Your task to perform on an android device: turn off picture-in-picture Image 0: 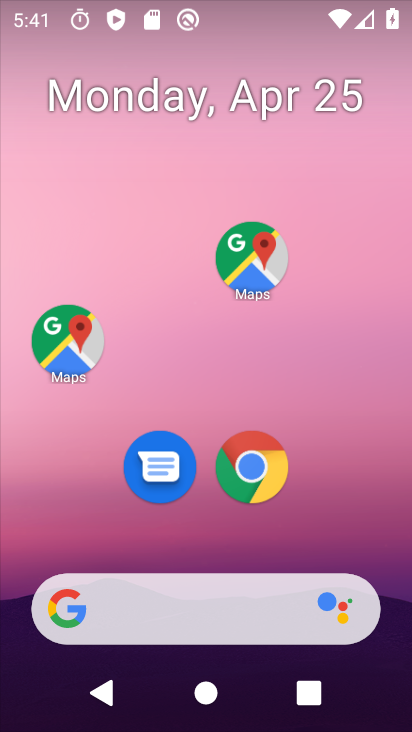
Step 0: drag from (271, 441) to (238, 37)
Your task to perform on an android device: turn off picture-in-picture Image 1: 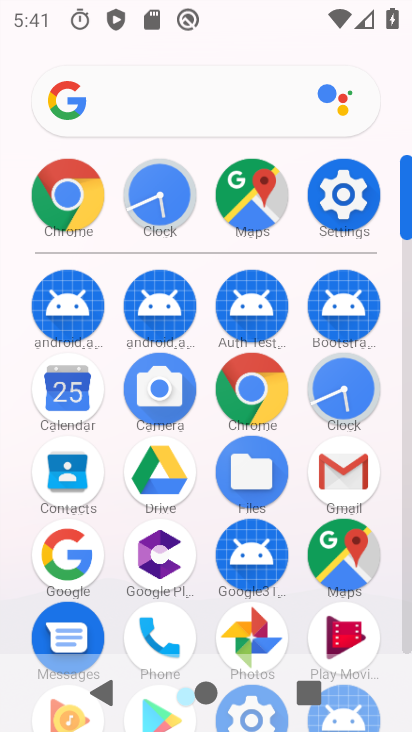
Step 1: drag from (294, 612) to (282, 232)
Your task to perform on an android device: turn off picture-in-picture Image 2: 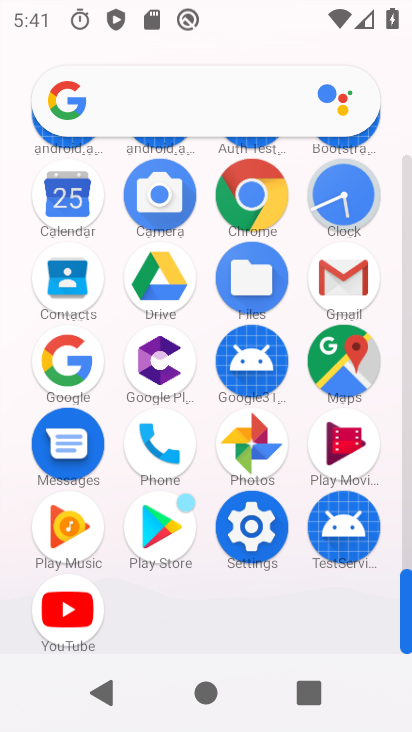
Step 2: click (259, 538)
Your task to perform on an android device: turn off picture-in-picture Image 3: 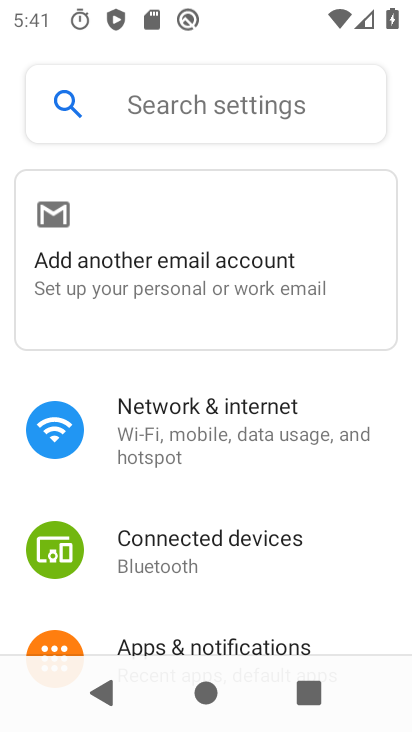
Step 3: drag from (331, 631) to (307, 74)
Your task to perform on an android device: turn off picture-in-picture Image 4: 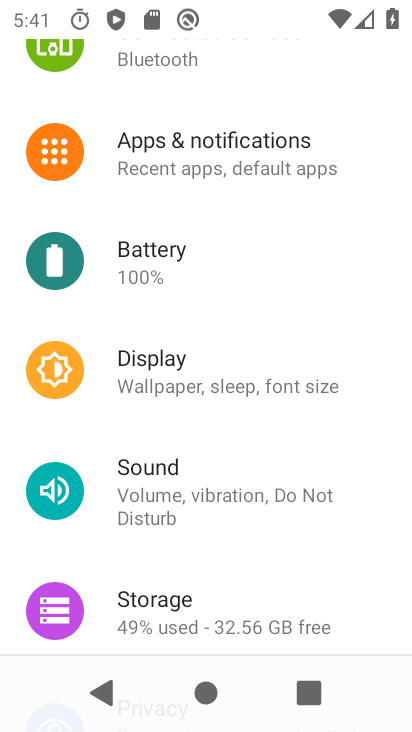
Step 4: drag from (279, 619) to (273, 724)
Your task to perform on an android device: turn off picture-in-picture Image 5: 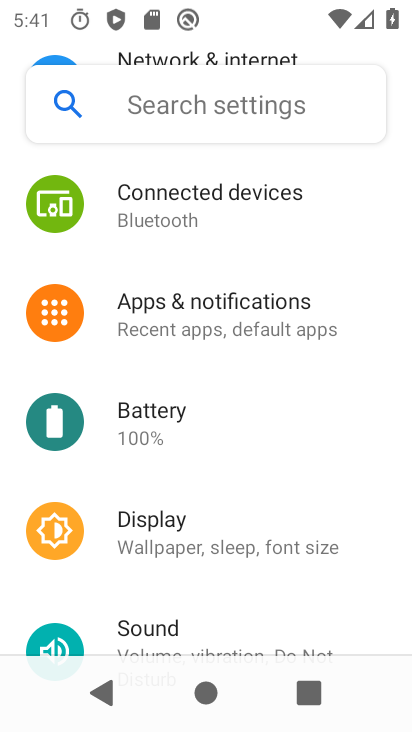
Step 5: click (232, 332)
Your task to perform on an android device: turn off picture-in-picture Image 6: 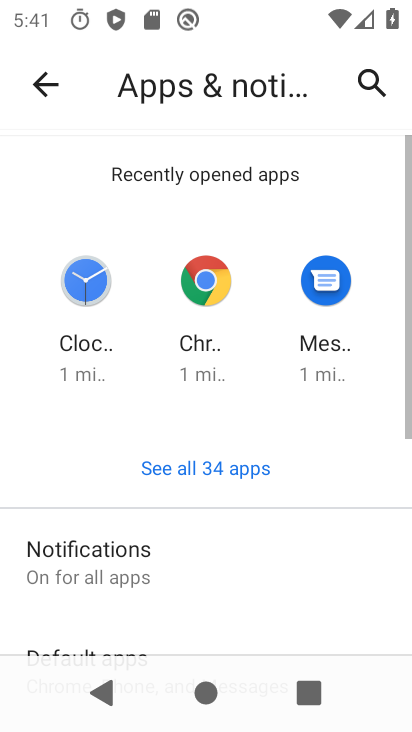
Step 6: drag from (292, 637) to (306, 13)
Your task to perform on an android device: turn off picture-in-picture Image 7: 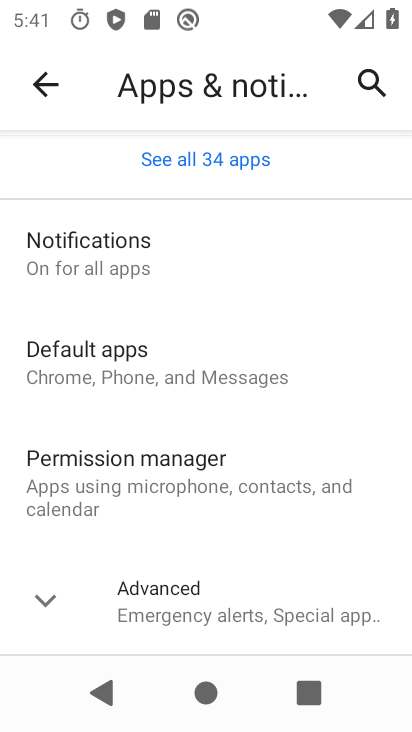
Step 7: click (275, 601)
Your task to perform on an android device: turn off picture-in-picture Image 8: 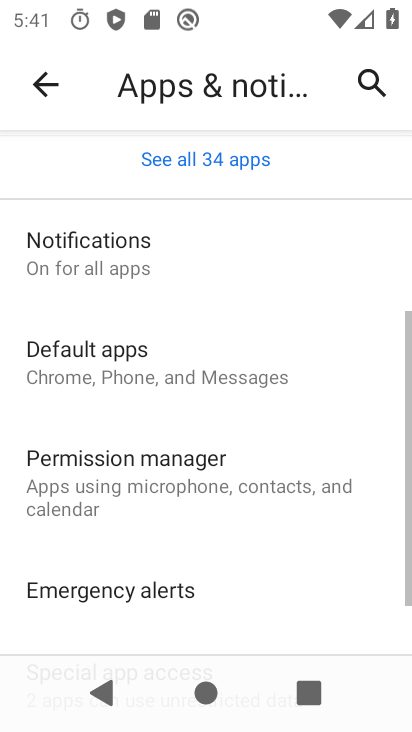
Step 8: drag from (289, 650) to (242, 121)
Your task to perform on an android device: turn off picture-in-picture Image 9: 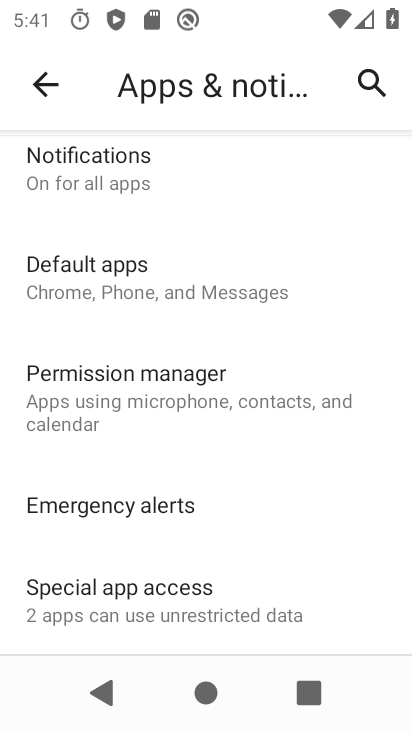
Step 9: click (176, 599)
Your task to perform on an android device: turn off picture-in-picture Image 10: 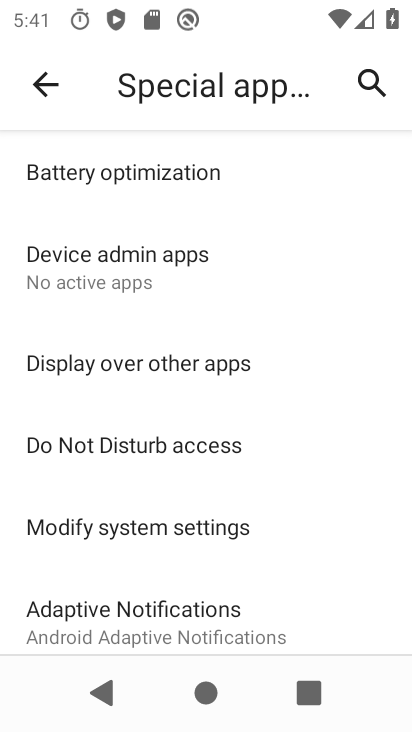
Step 10: drag from (204, 557) to (198, 60)
Your task to perform on an android device: turn off picture-in-picture Image 11: 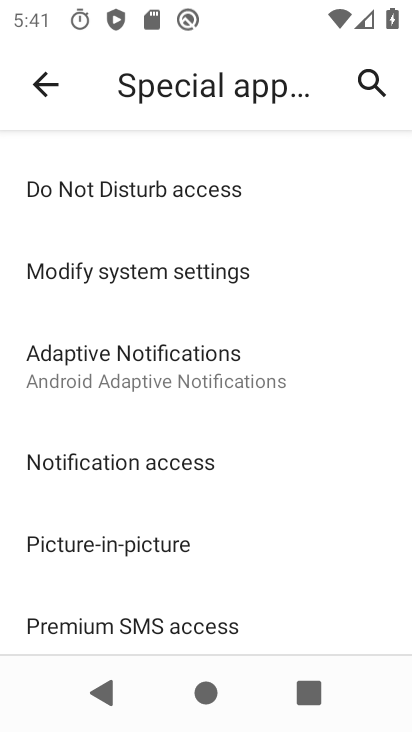
Step 11: click (171, 551)
Your task to perform on an android device: turn off picture-in-picture Image 12: 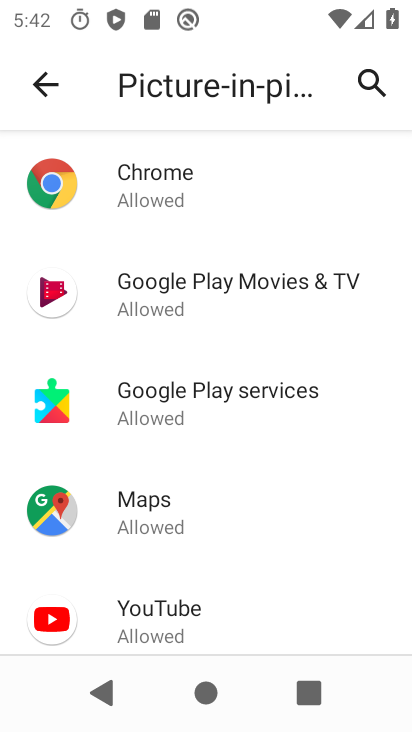
Step 12: click (187, 184)
Your task to perform on an android device: turn off picture-in-picture Image 13: 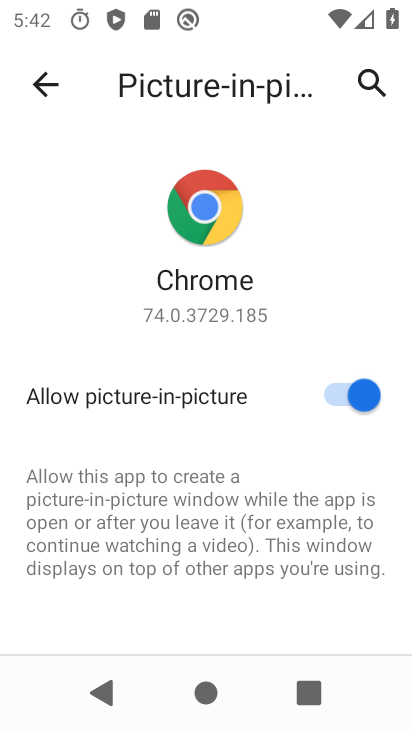
Step 13: click (334, 397)
Your task to perform on an android device: turn off picture-in-picture Image 14: 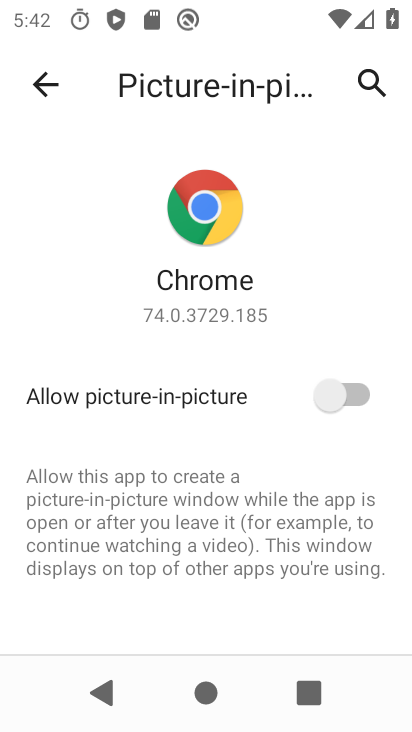
Step 14: press back button
Your task to perform on an android device: turn off picture-in-picture Image 15: 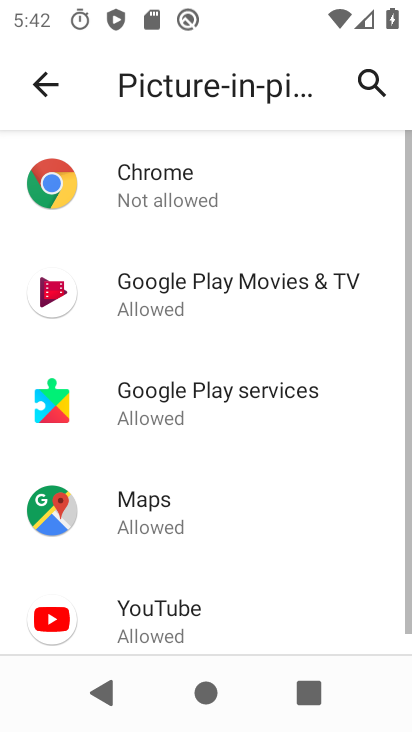
Step 15: click (191, 284)
Your task to perform on an android device: turn off picture-in-picture Image 16: 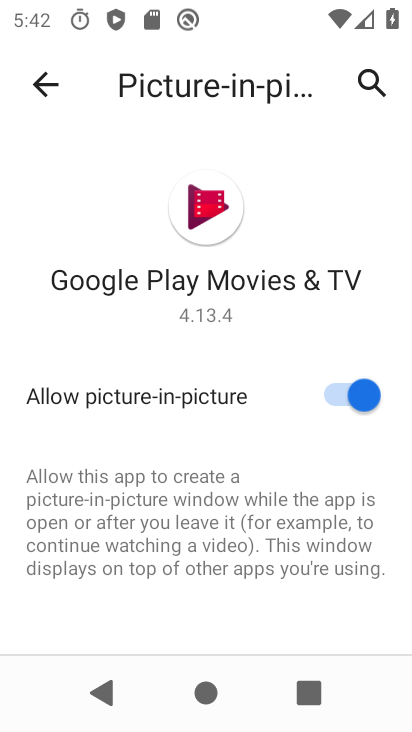
Step 16: click (338, 386)
Your task to perform on an android device: turn off picture-in-picture Image 17: 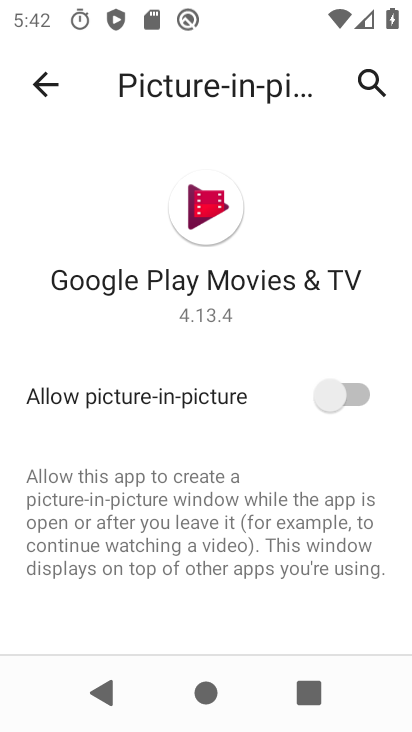
Step 17: press back button
Your task to perform on an android device: turn off picture-in-picture Image 18: 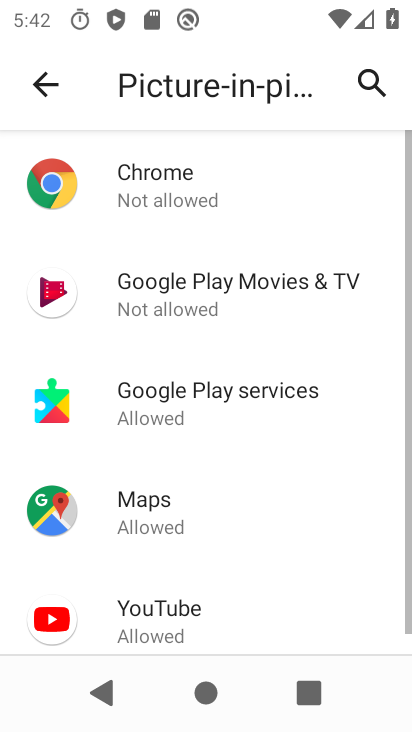
Step 18: click (218, 402)
Your task to perform on an android device: turn off picture-in-picture Image 19: 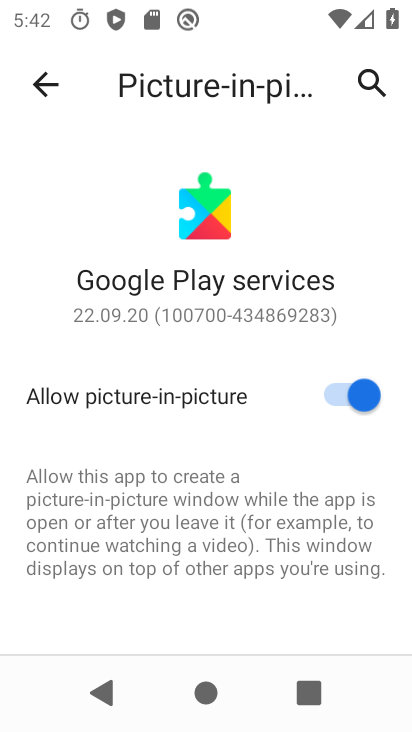
Step 19: click (339, 389)
Your task to perform on an android device: turn off picture-in-picture Image 20: 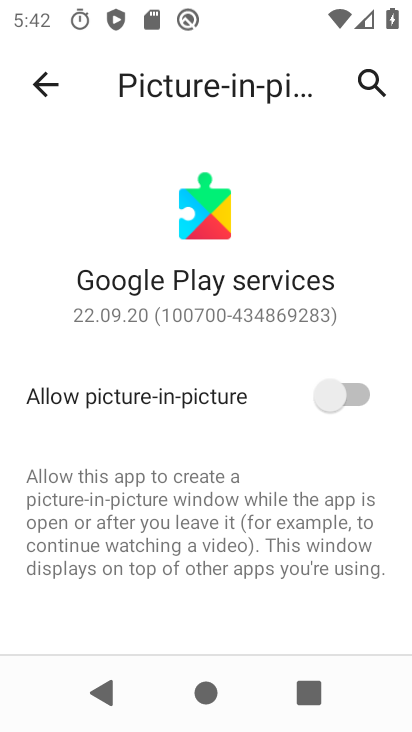
Step 20: press back button
Your task to perform on an android device: turn off picture-in-picture Image 21: 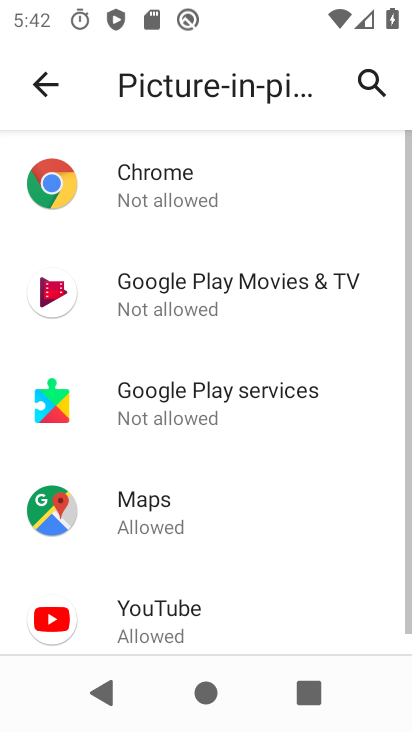
Step 21: click (248, 526)
Your task to perform on an android device: turn off picture-in-picture Image 22: 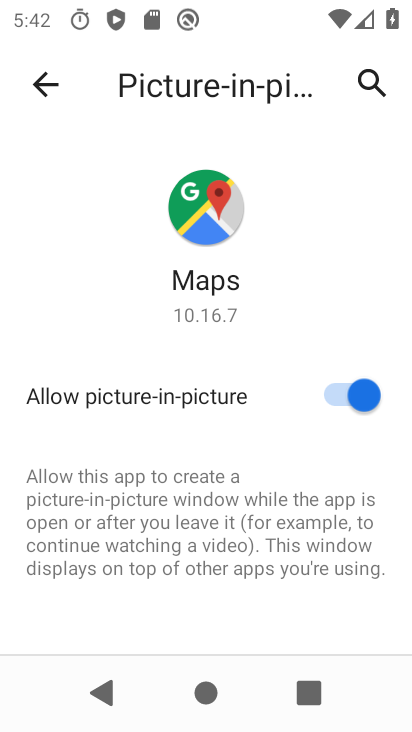
Step 22: click (333, 396)
Your task to perform on an android device: turn off picture-in-picture Image 23: 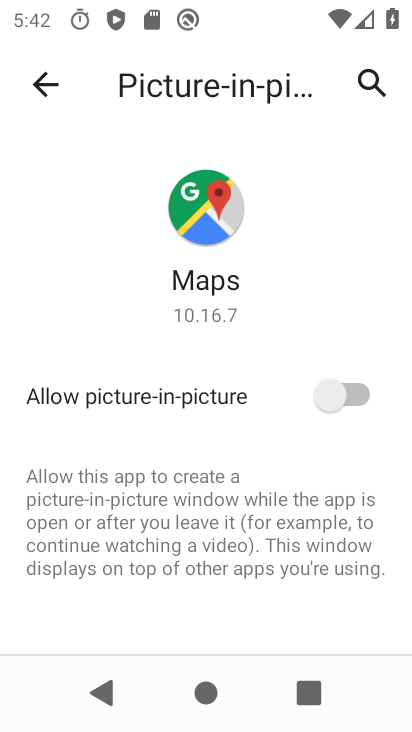
Step 23: press back button
Your task to perform on an android device: turn off picture-in-picture Image 24: 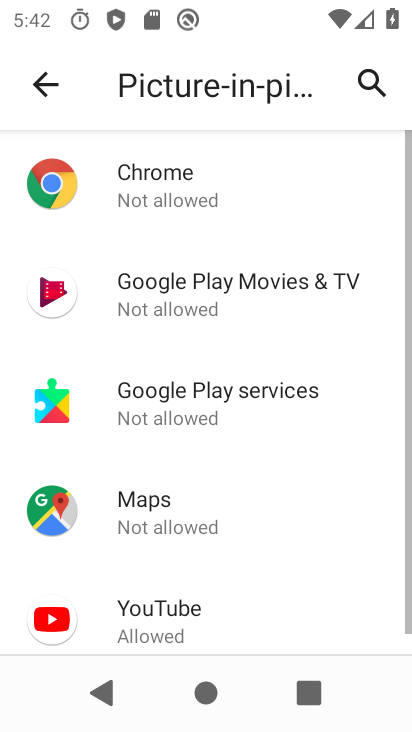
Step 24: drag from (260, 615) to (266, 87)
Your task to perform on an android device: turn off picture-in-picture Image 25: 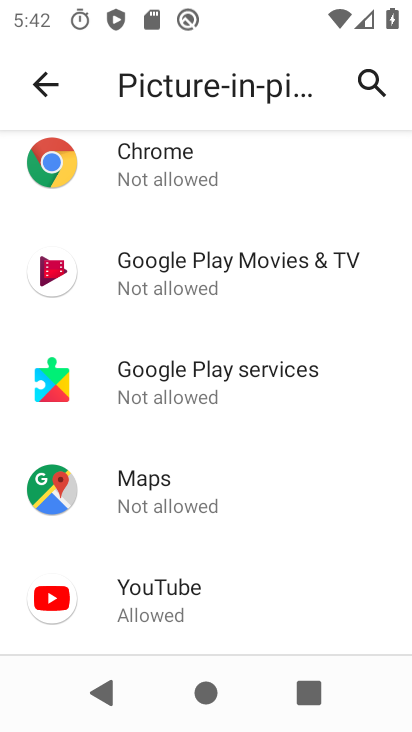
Step 25: click (284, 616)
Your task to perform on an android device: turn off picture-in-picture Image 26: 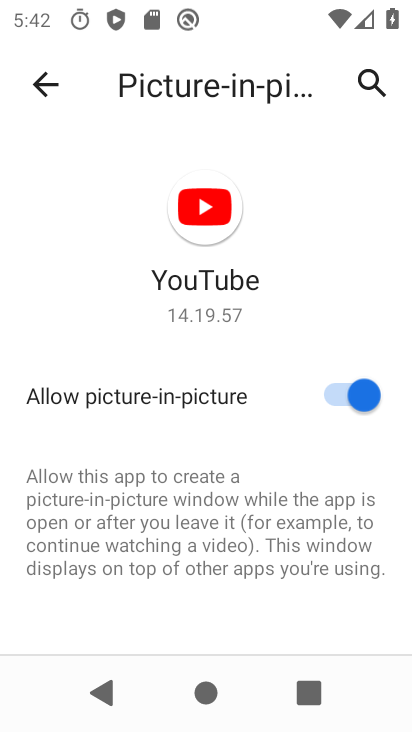
Step 26: click (331, 394)
Your task to perform on an android device: turn off picture-in-picture Image 27: 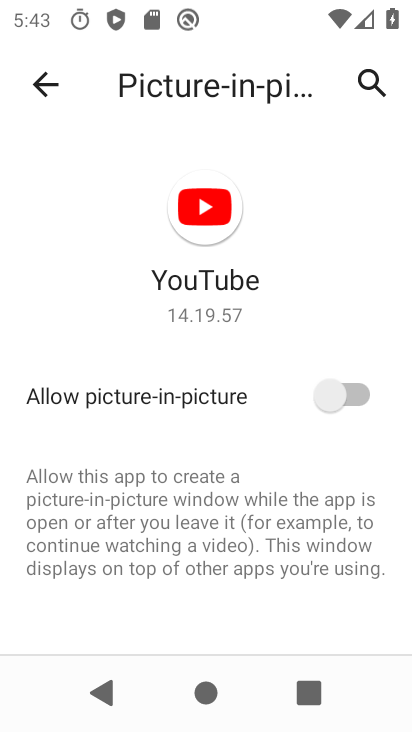
Step 27: task complete